Your task to perform on an android device: Open the Play Movies app and select the watchlist tab. Image 0: 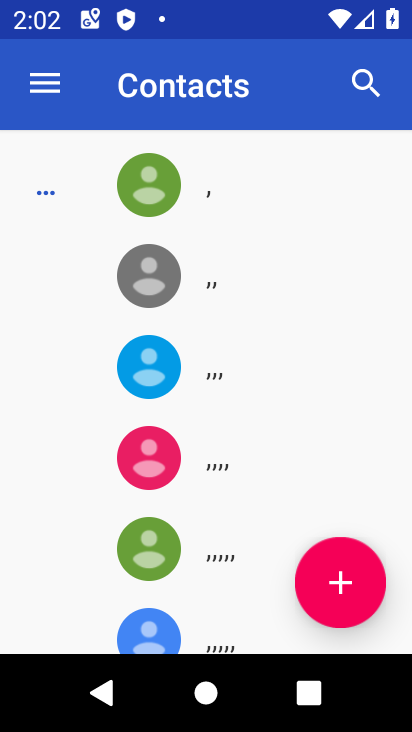
Step 0: task complete